Your task to perform on an android device: clear all cookies in the chrome app Image 0: 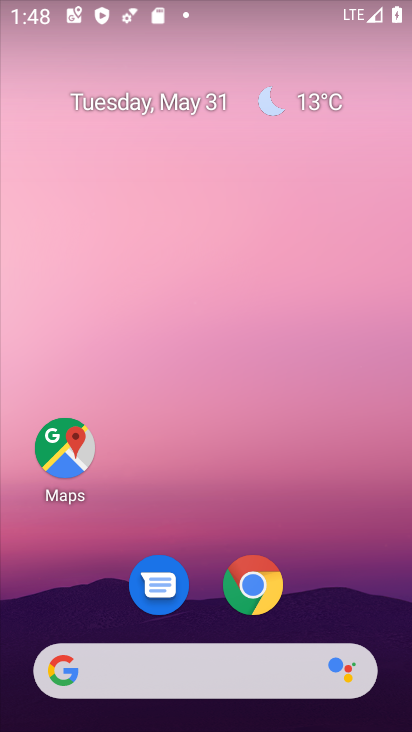
Step 0: click (252, 590)
Your task to perform on an android device: clear all cookies in the chrome app Image 1: 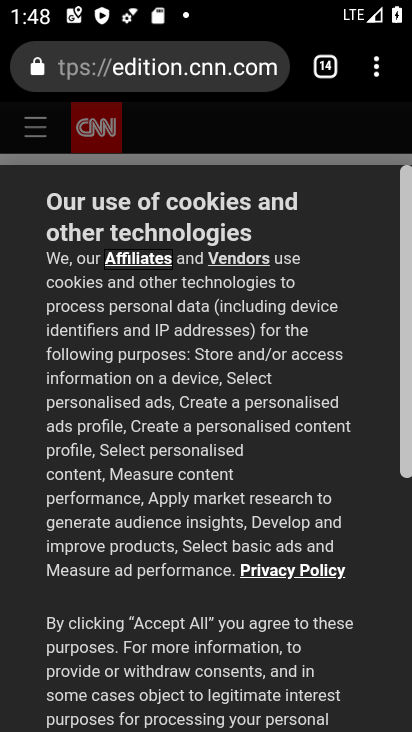
Step 1: click (377, 76)
Your task to perform on an android device: clear all cookies in the chrome app Image 2: 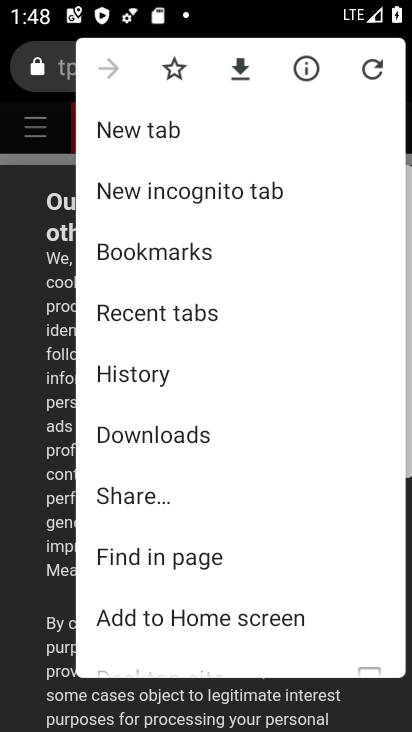
Step 2: drag from (241, 543) to (248, 236)
Your task to perform on an android device: clear all cookies in the chrome app Image 3: 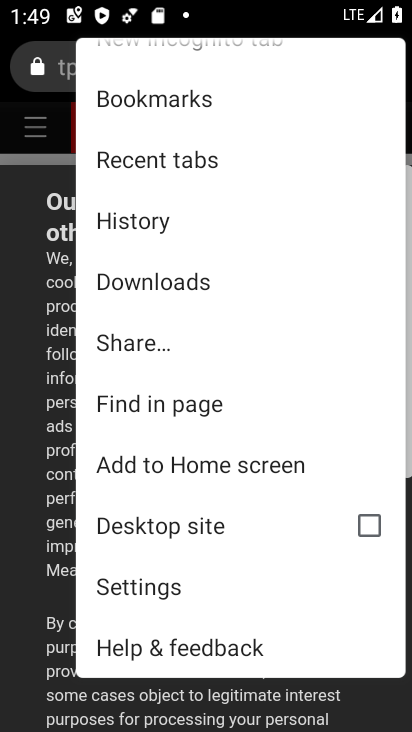
Step 3: click (215, 579)
Your task to perform on an android device: clear all cookies in the chrome app Image 4: 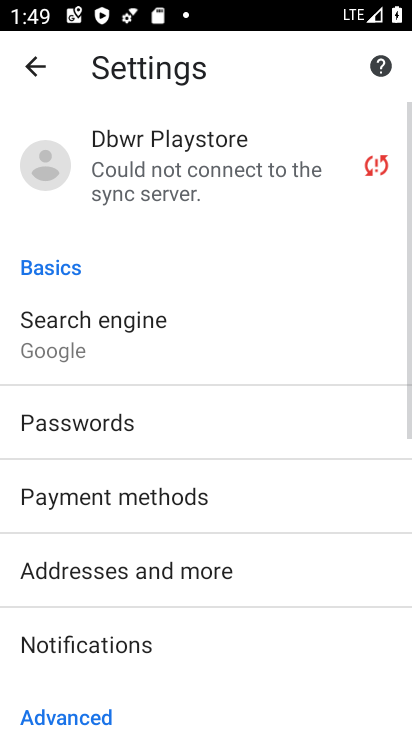
Step 4: drag from (247, 507) to (272, 351)
Your task to perform on an android device: clear all cookies in the chrome app Image 5: 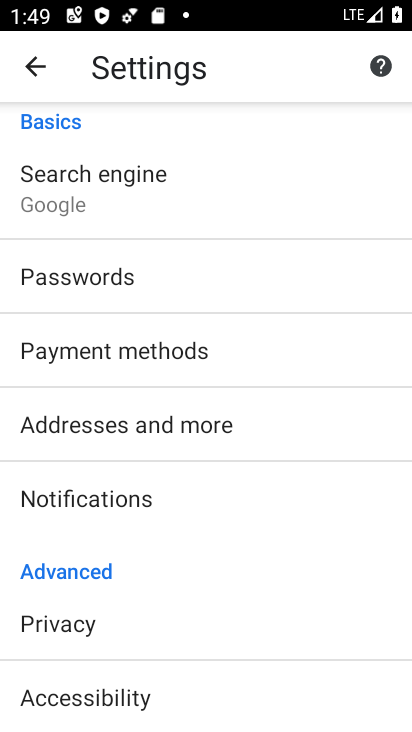
Step 5: click (141, 625)
Your task to perform on an android device: clear all cookies in the chrome app Image 6: 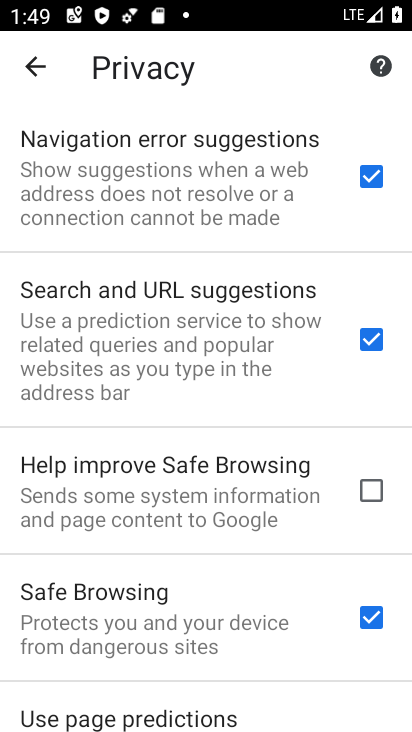
Step 6: drag from (191, 589) to (164, 182)
Your task to perform on an android device: clear all cookies in the chrome app Image 7: 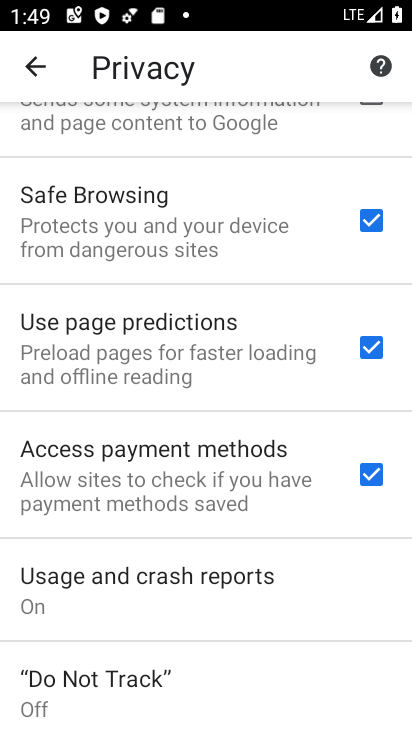
Step 7: drag from (220, 501) to (207, 65)
Your task to perform on an android device: clear all cookies in the chrome app Image 8: 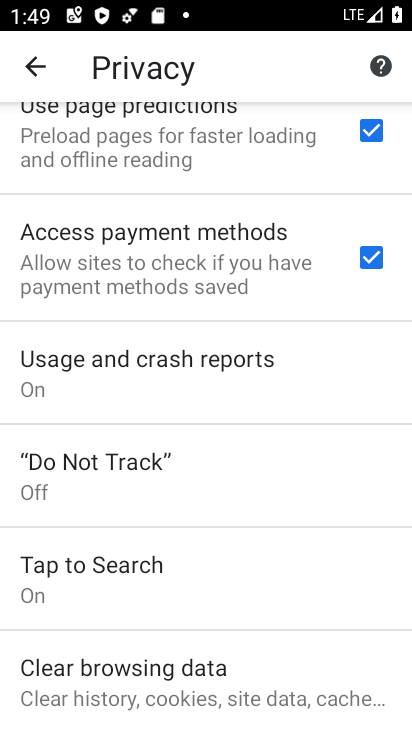
Step 8: click (218, 666)
Your task to perform on an android device: clear all cookies in the chrome app Image 9: 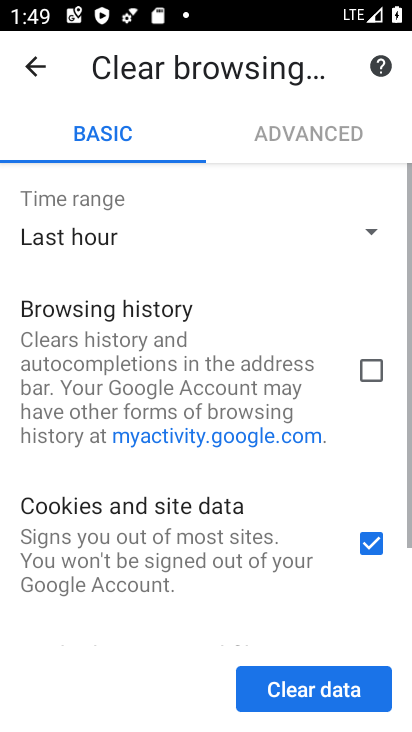
Step 9: drag from (258, 574) to (262, 336)
Your task to perform on an android device: clear all cookies in the chrome app Image 10: 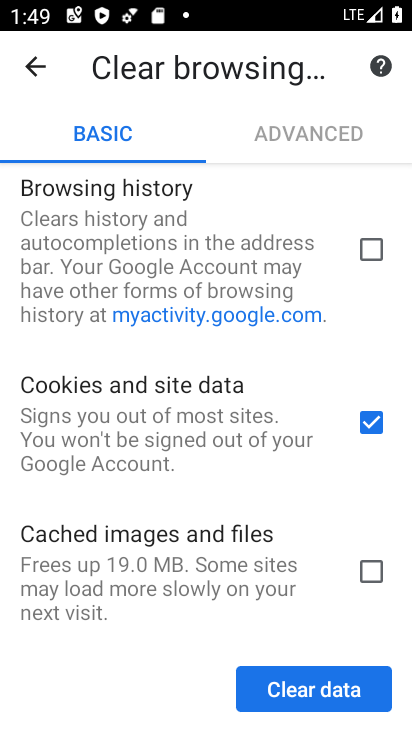
Step 10: click (318, 693)
Your task to perform on an android device: clear all cookies in the chrome app Image 11: 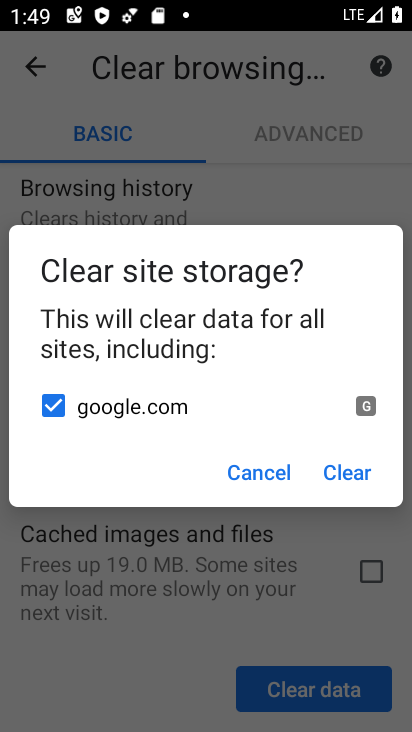
Step 11: click (356, 462)
Your task to perform on an android device: clear all cookies in the chrome app Image 12: 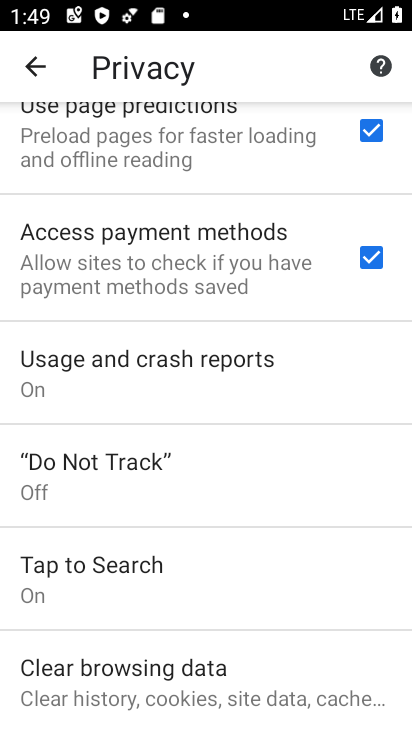
Step 12: task complete